Your task to perform on an android device: open app "Paramount+ | Peak Streaming" (install if not already installed) Image 0: 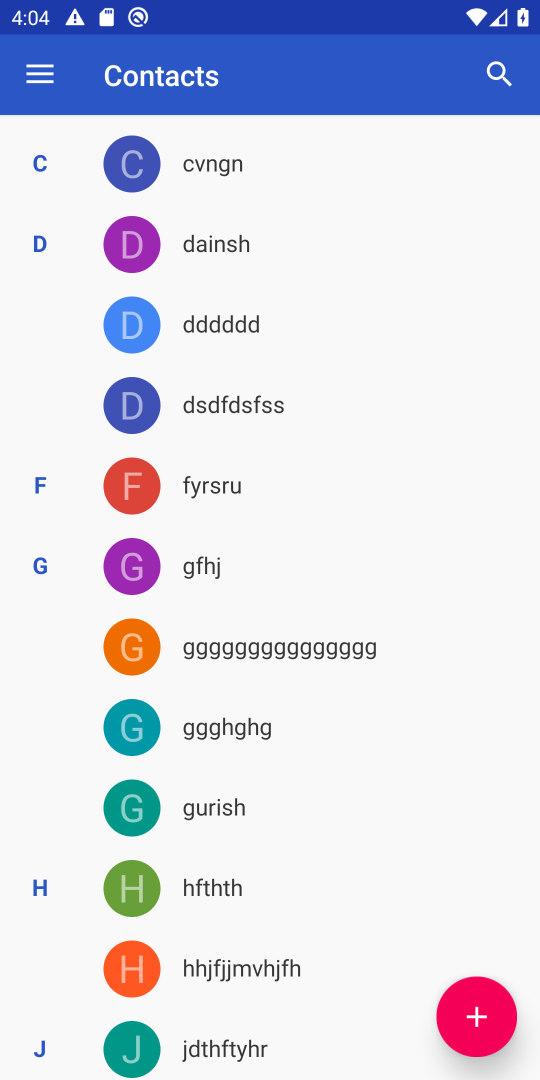
Step 0: press home button
Your task to perform on an android device: open app "Paramount+ | Peak Streaming" (install if not already installed) Image 1: 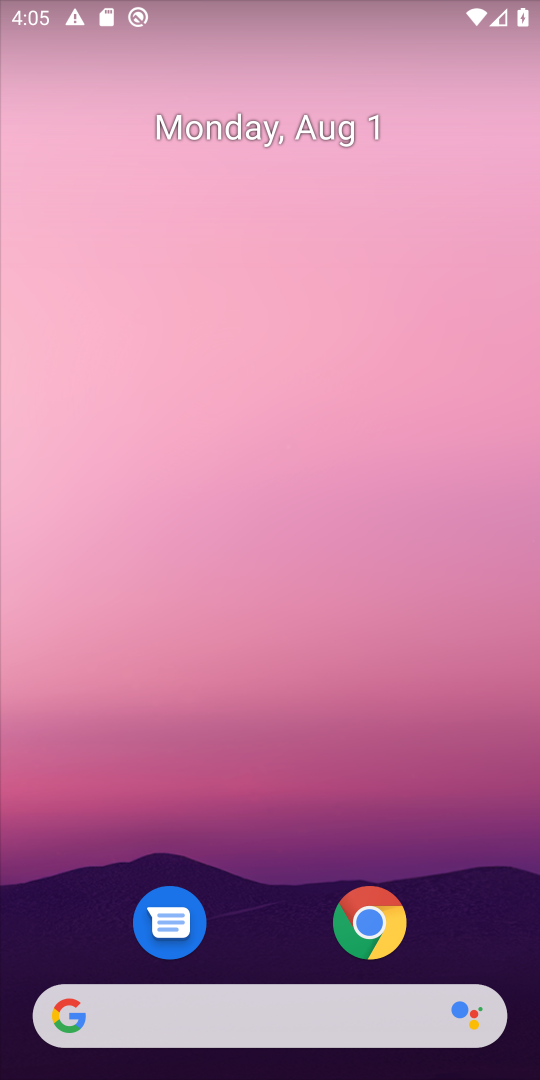
Step 1: drag from (278, 859) to (288, 32)
Your task to perform on an android device: open app "Paramount+ | Peak Streaming" (install if not already installed) Image 2: 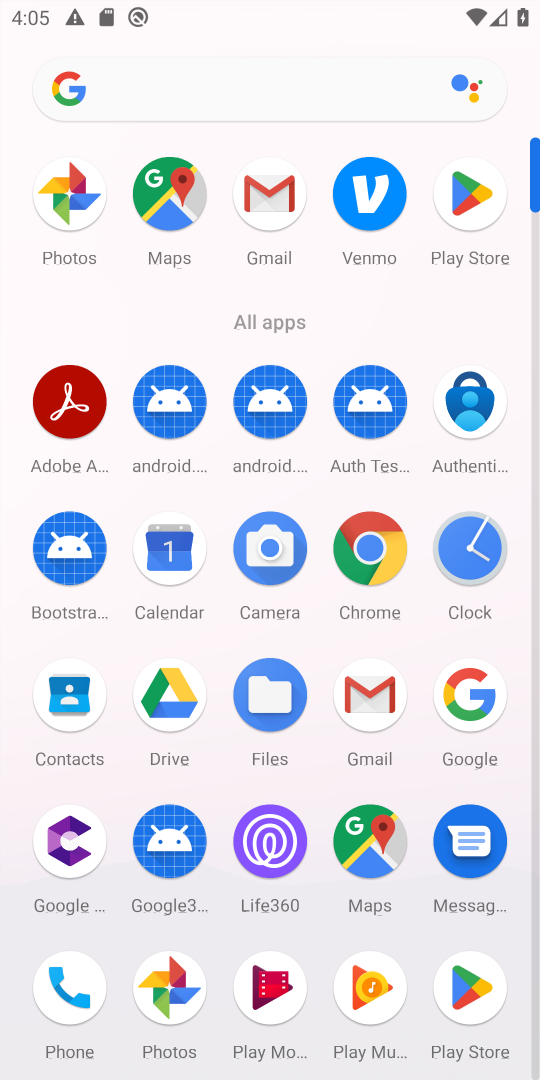
Step 2: click (471, 189)
Your task to perform on an android device: open app "Paramount+ | Peak Streaming" (install if not already installed) Image 3: 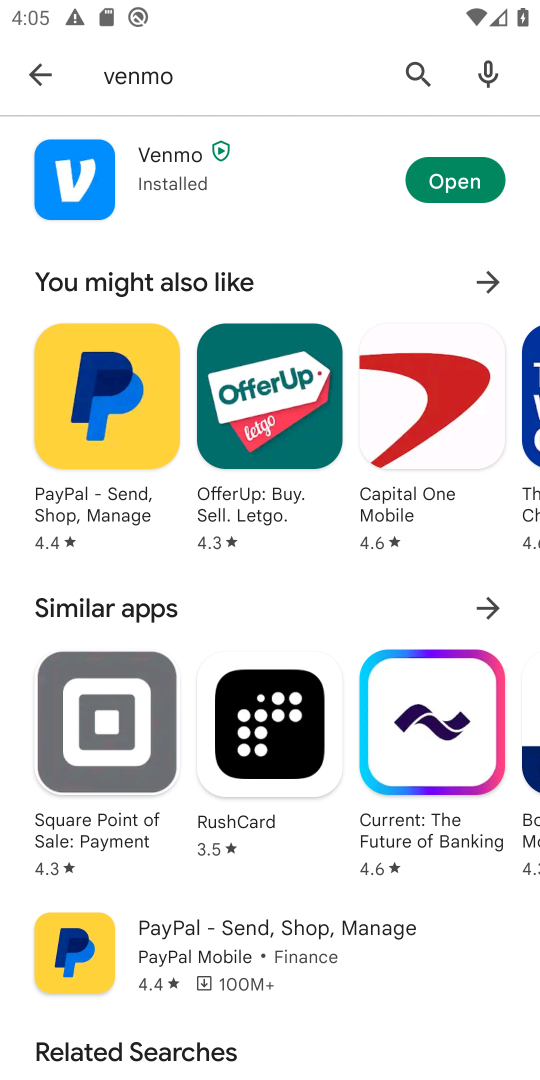
Step 3: click (421, 67)
Your task to perform on an android device: open app "Paramount+ | Peak Streaming" (install if not already installed) Image 4: 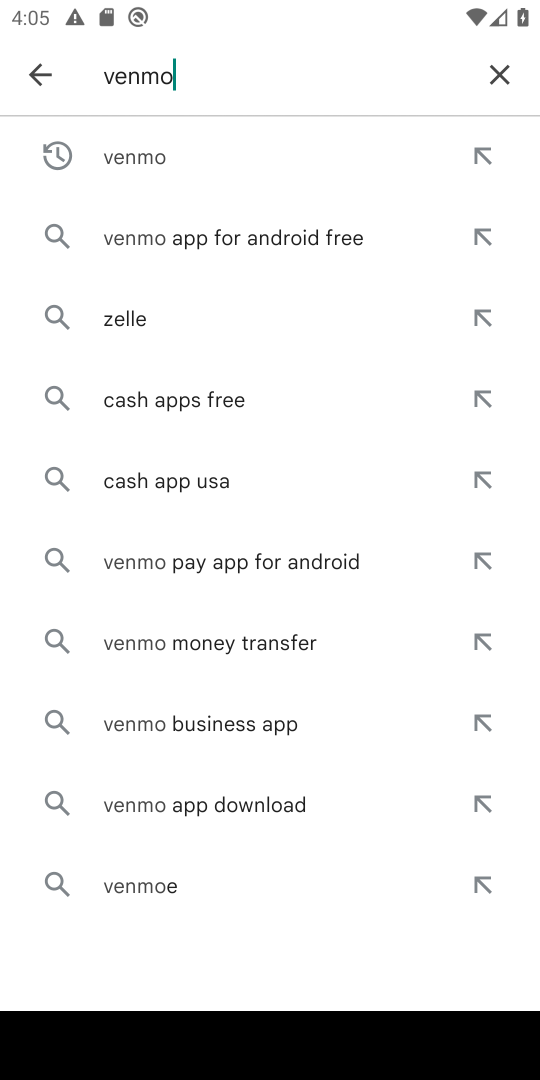
Step 4: click (488, 76)
Your task to perform on an android device: open app "Paramount+ | Peak Streaming" (install if not already installed) Image 5: 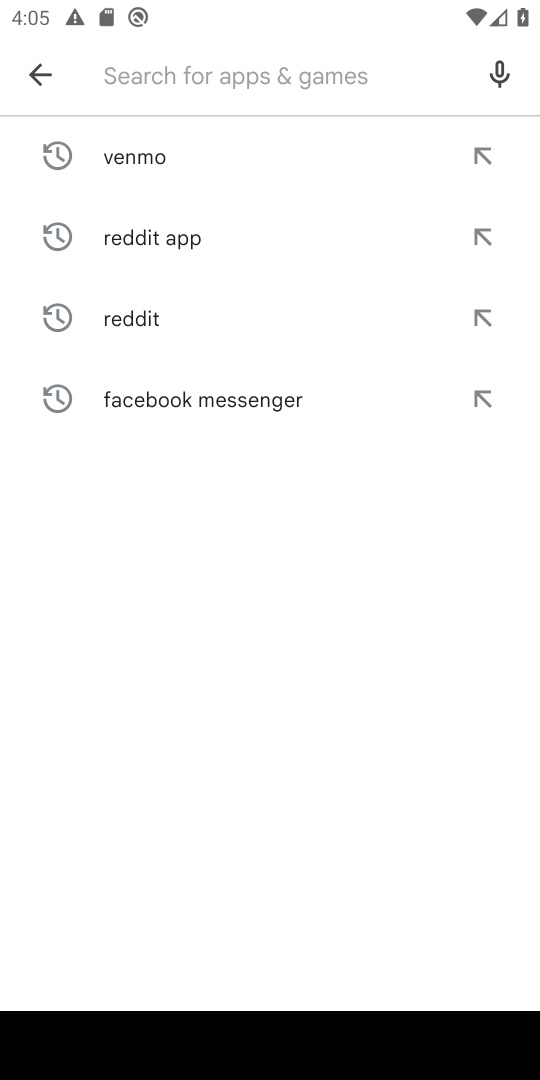
Step 5: type "Paramount+ | Peak Streaming"
Your task to perform on an android device: open app "Paramount+ | Peak Streaming" (install if not already installed) Image 6: 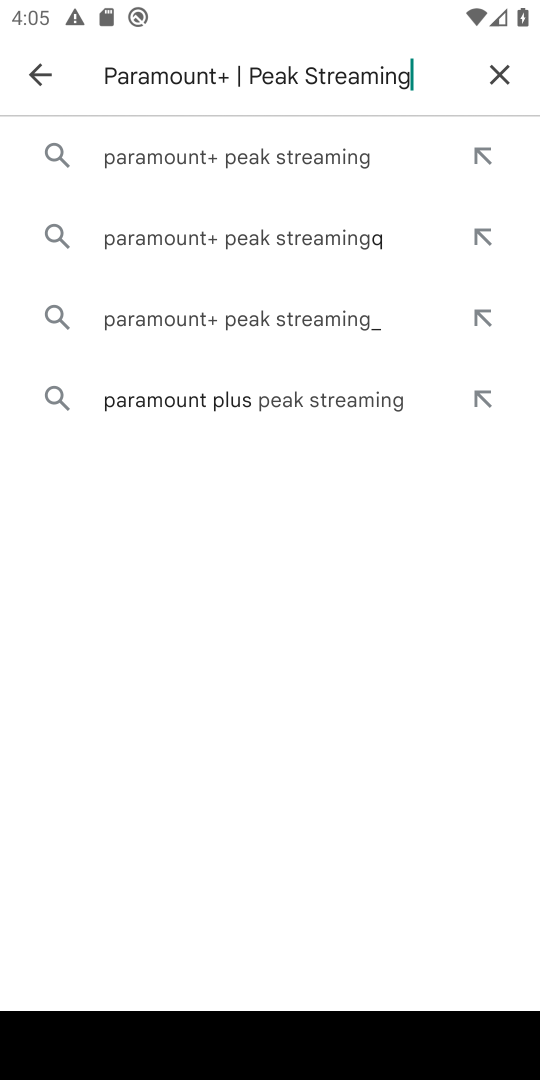
Step 6: click (135, 161)
Your task to perform on an android device: open app "Paramount+ | Peak Streaming" (install if not already installed) Image 7: 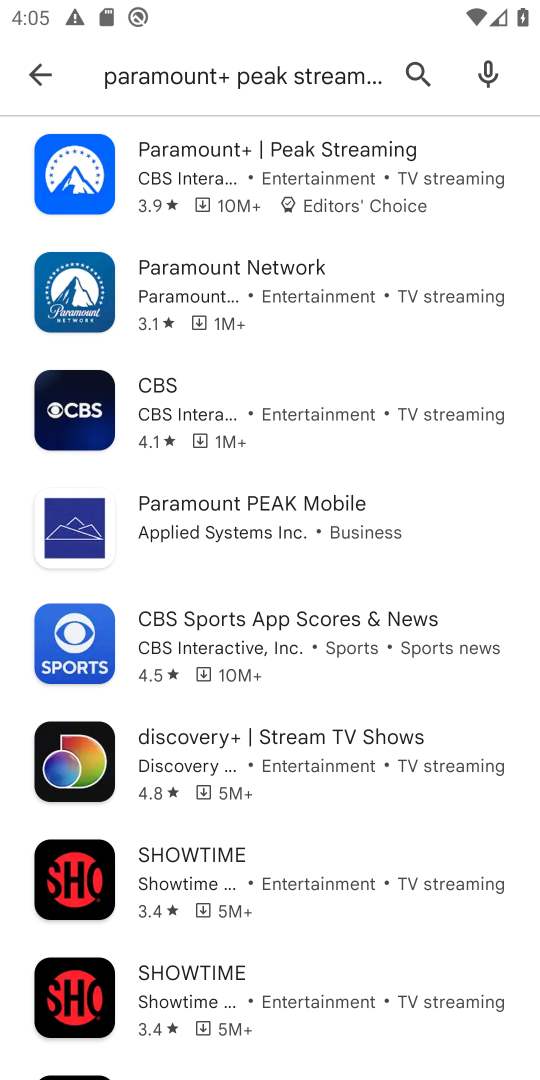
Step 7: click (195, 188)
Your task to perform on an android device: open app "Paramount+ | Peak Streaming" (install if not already installed) Image 8: 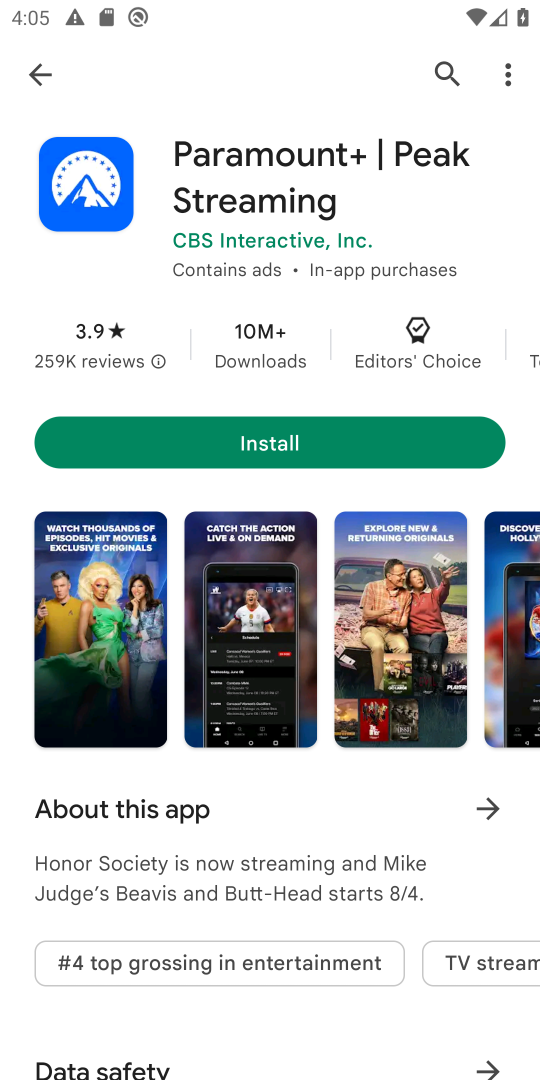
Step 8: click (224, 440)
Your task to perform on an android device: open app "Paramount+ | Peak Streaming" (install if not already installed) Image 9: 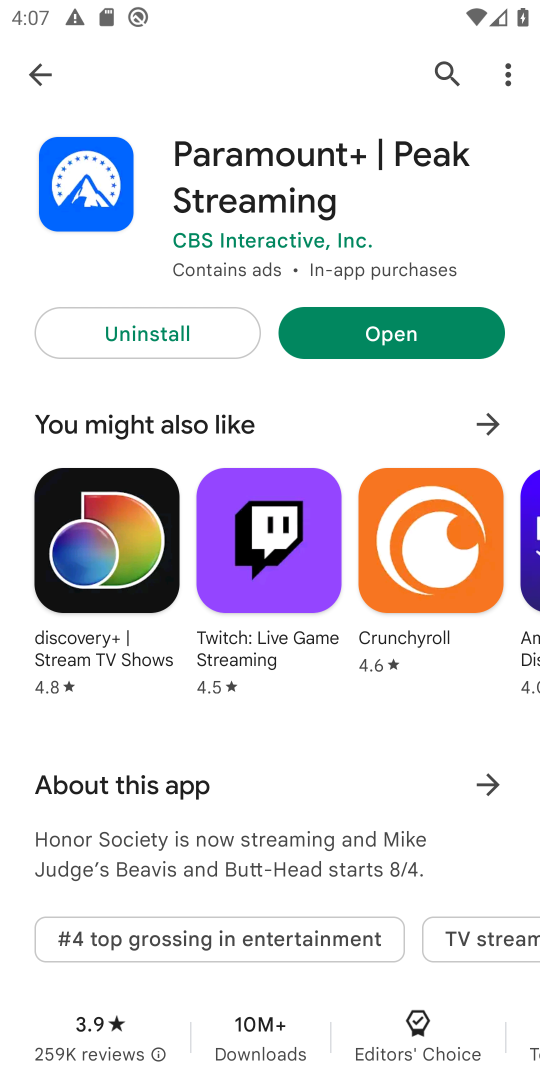
Step 9: click (377, 339)
Your task to perform on an android device: open app "Paramount+ | Peak Streaming" (install if not already installed) Image 10: 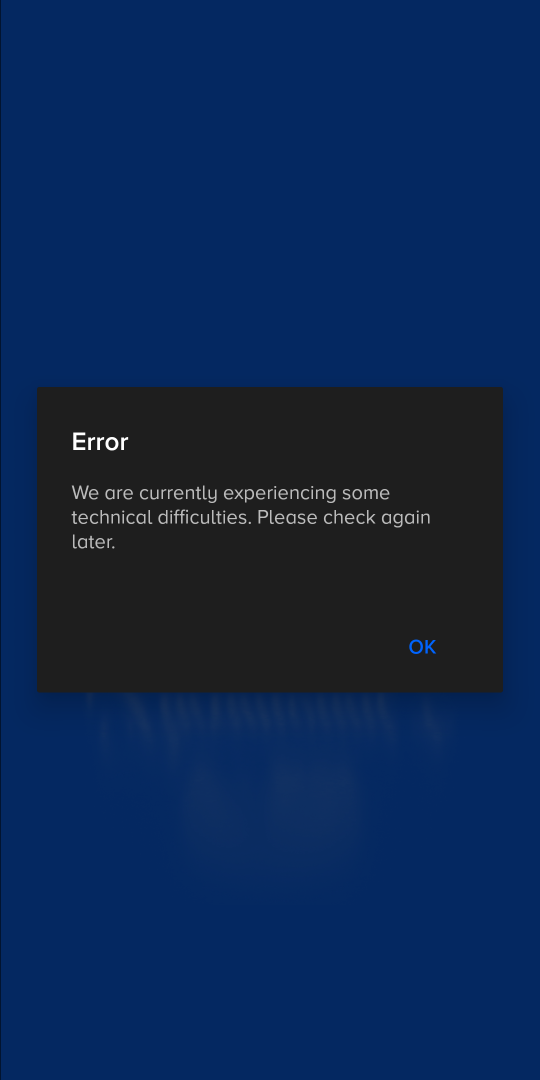
Step 10: task complete